Your task to perform on an android device: When is my next appointment? Image 0: 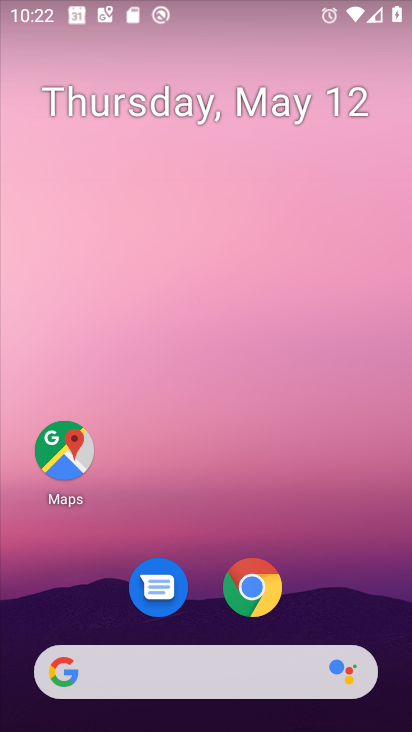
Step 0: drag from (369, 609) to (273, 50)
Your task to perform on an android device: When is my next appointment? Image 1: 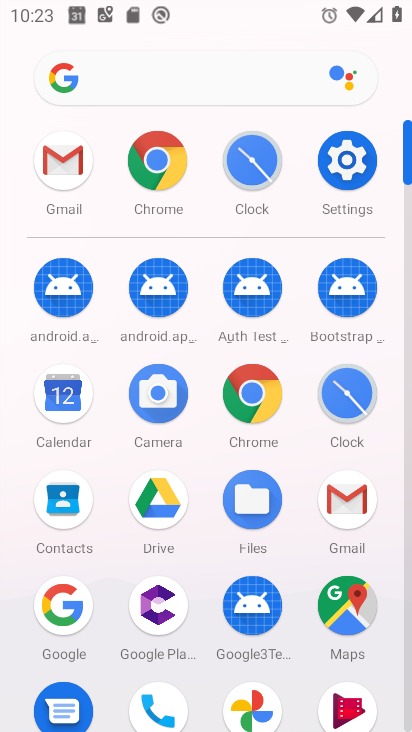
Step 1: click (63, 390)
Your task to perform on an android device: When is my next appointment? Image 2: 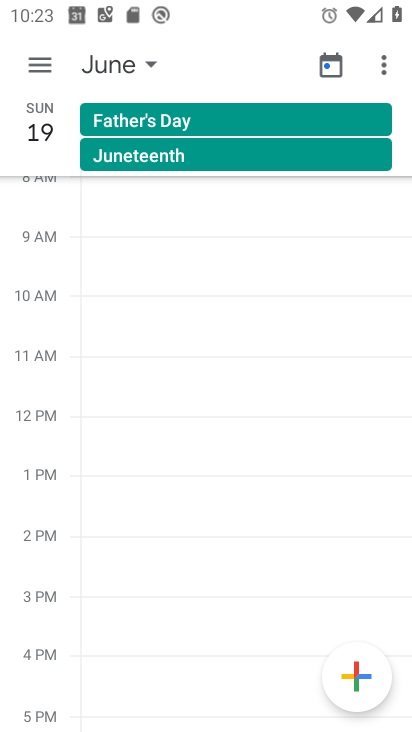
Step 2: task complete